Your task to perform on an android device: find photos in the google photos app Image 0: 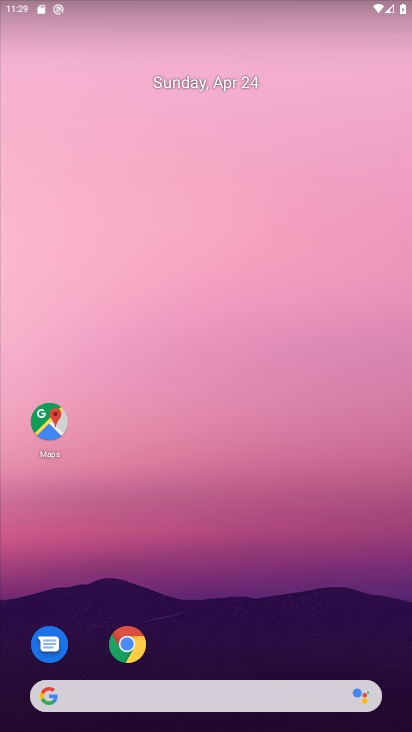
Step 0: drag from (201, 587) to (264, 0)
Your task to perform on an android device: find photos in the google photos app Image 1: 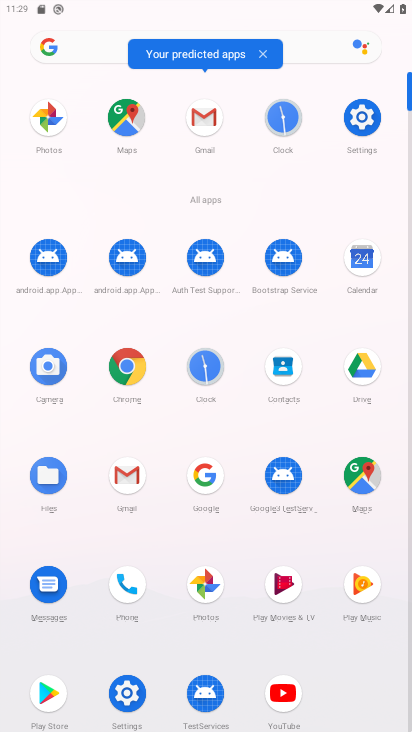
Step 1: click (212, 595)
Your task to perform on an android device: find photos in the google photos app Image 2: 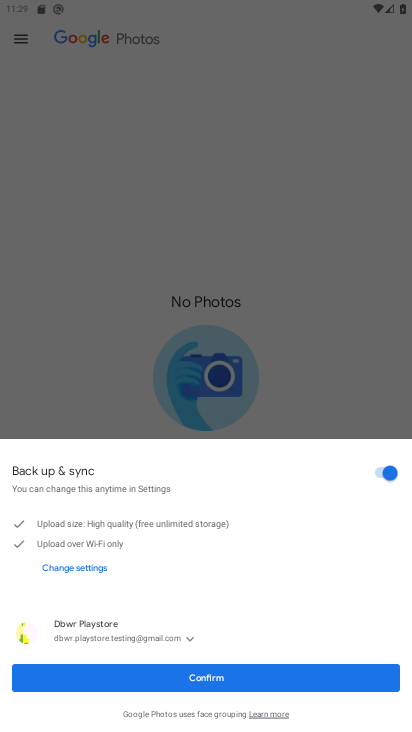
Step 2: click (165, 674)
Your task to perform on an android device: find photos in the google photos app Image 3: 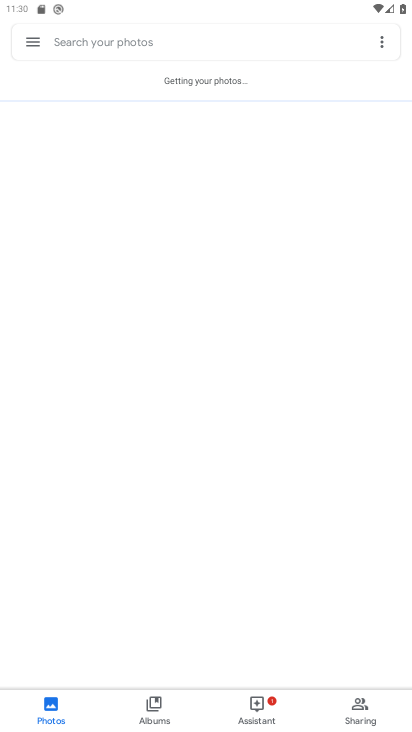
Step 3: drag from (149, 238) to (149, 325)
Your task to perform on an android device: find photos in the google photos app Image 4: 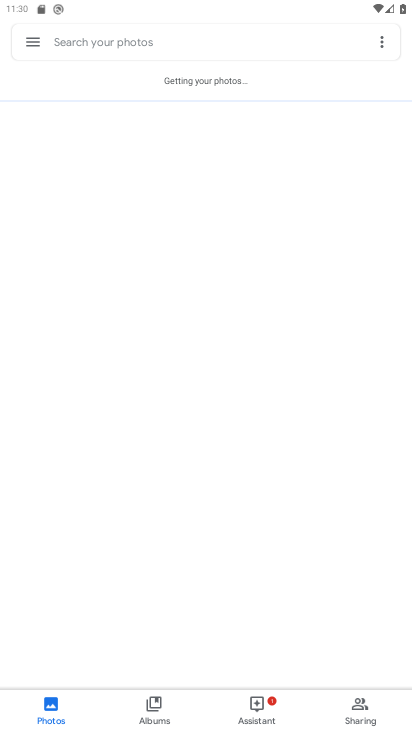
Step 4: click (37, 39)
Your task to perform on an android device: find photos in the google photos app Image 5: 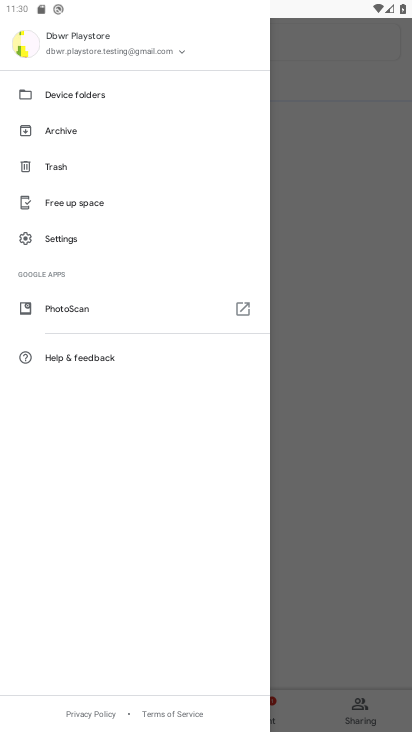
Step 5: click (325, 287)
Your task to perform on an android device: find photos in the google photos app Image 6: 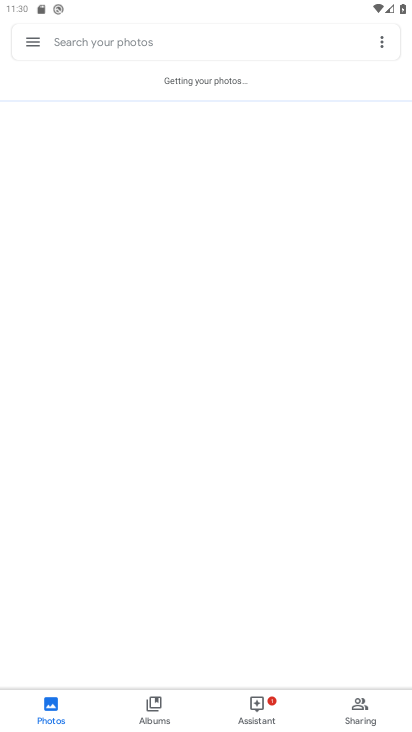
Step 6: drag from (220, 404) to (216, 473)
Your task to perform on an android device: find photos in the google photos app Image 7: 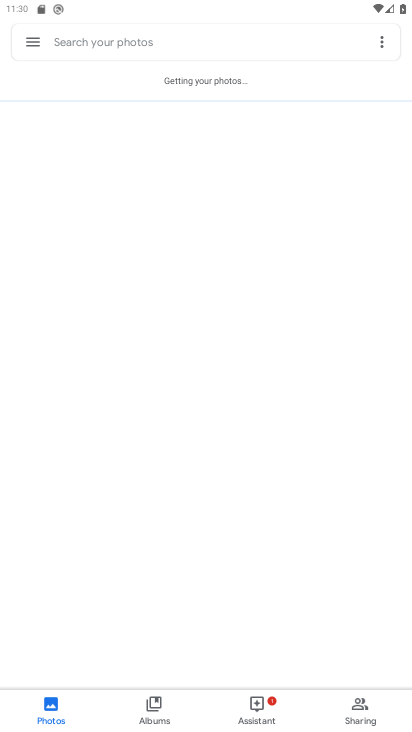
Step 7: drag from (192, 399) to (219, 358)
Your task to perform on an android device: find photos in the google photos app Image 8: 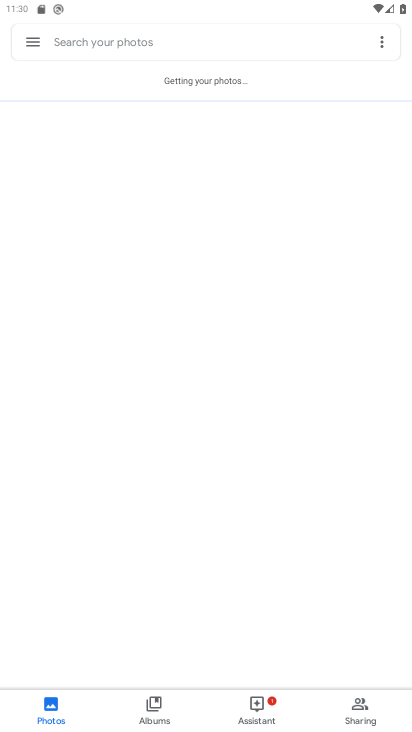
Step 8: click (216, 323)
Your task to perform on an android device: find photos in the google photos app Image 9: 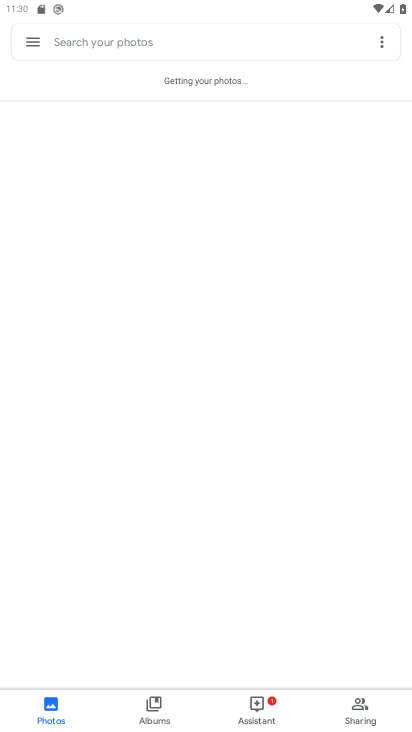
Step 9: task complete